Your task to perform on an android device: refresh tabs in the chrome app Image 0: 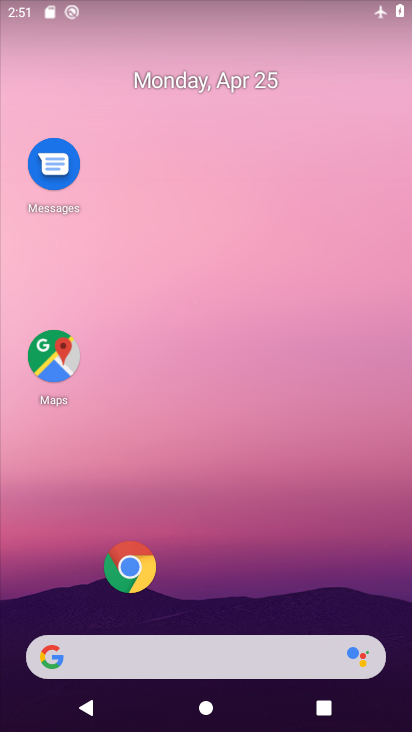
Step 0: drag from (298, 519) to (305, 439)
Your task to perform on an android device: refresh tabs in the chrome app Image 1: 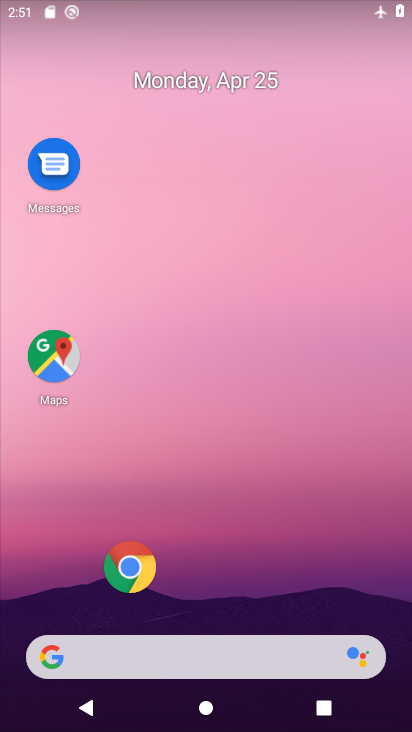
Step 1: drag from (260, 560) to (307, 194)
Your task to perform on an android device: refresh tabs in the chrome app Image 2: 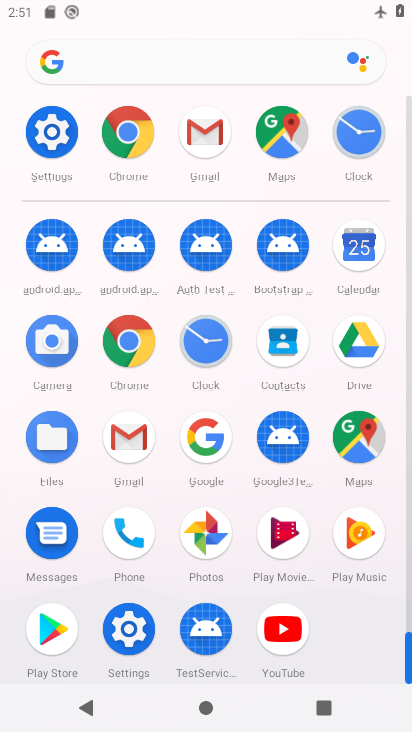
Step 2: click (122, 354)
Your task to perform on an android device: refresh tabs in the chrome app Image 3: 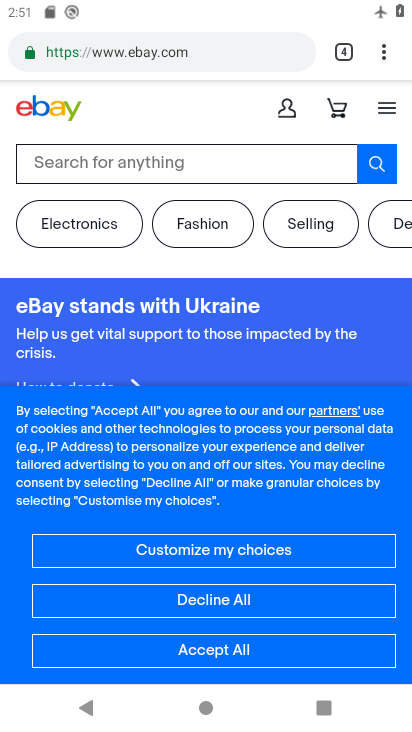
Step 3: click (383, 56)
Your task to perform on an android device: refresh tabs in the chrome app Image 4: 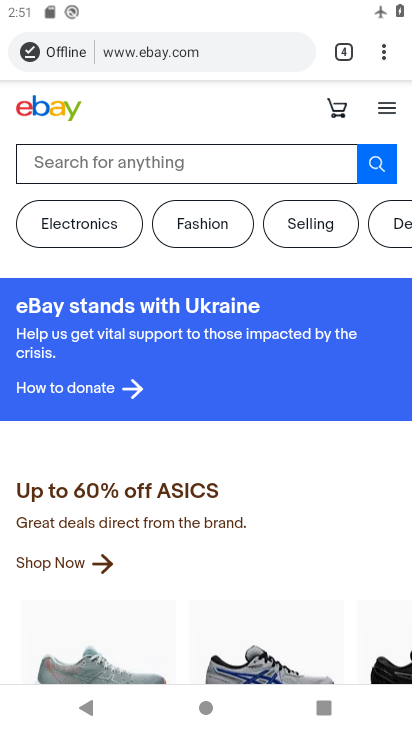
Step 4: task complete